Your task to perform on an android device: turn on wifi Image 0: 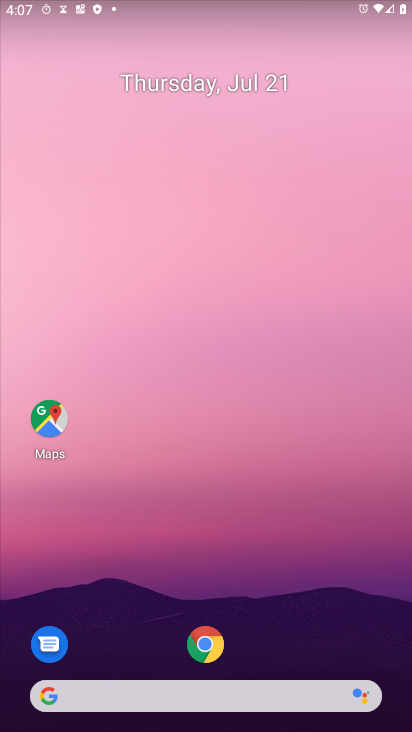
Step 0: press home button
Your task to perform on an android device: turn on wifi Image 1: 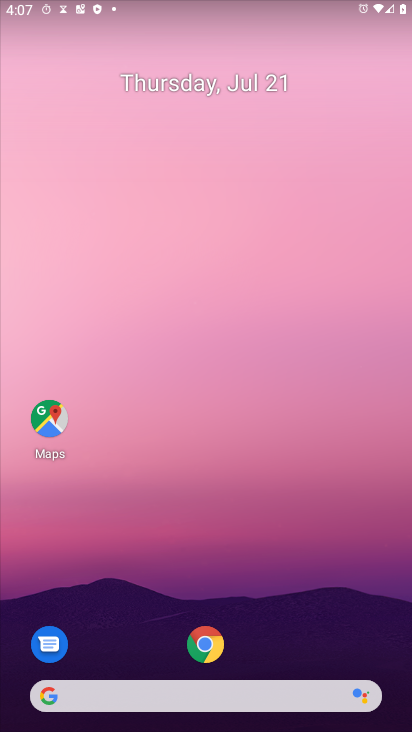
Step 1: task complete